Your task to perform on an android device: Open Amazon Image 0: 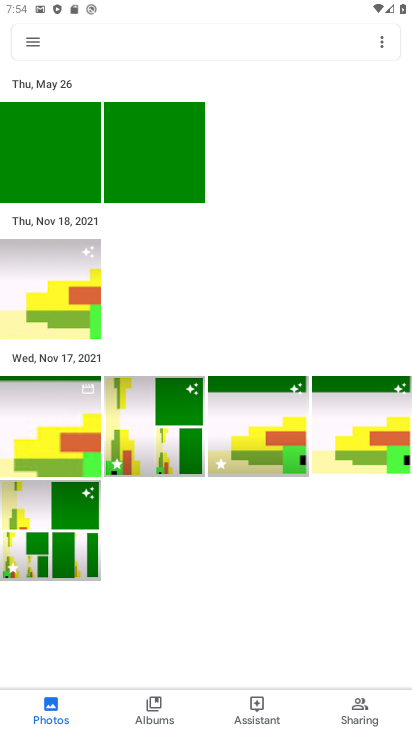
Step 0: drag from (181, 641) to (287, 248)
Your task to perform on an android device: Open Amazon Image 1: 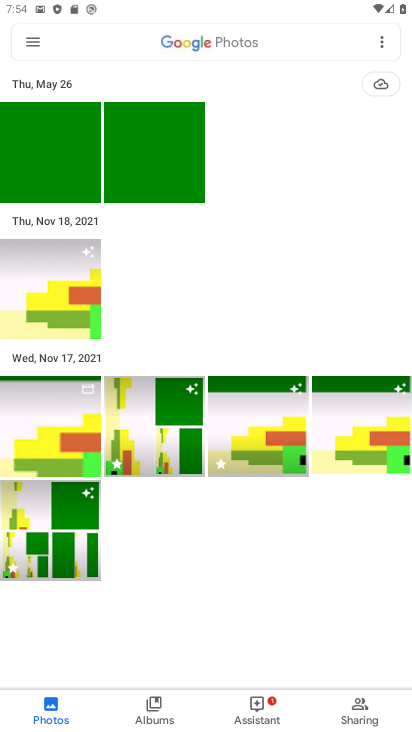
Step 1: press home button
Your task to perform on an android device: Open Amazon Image 2: 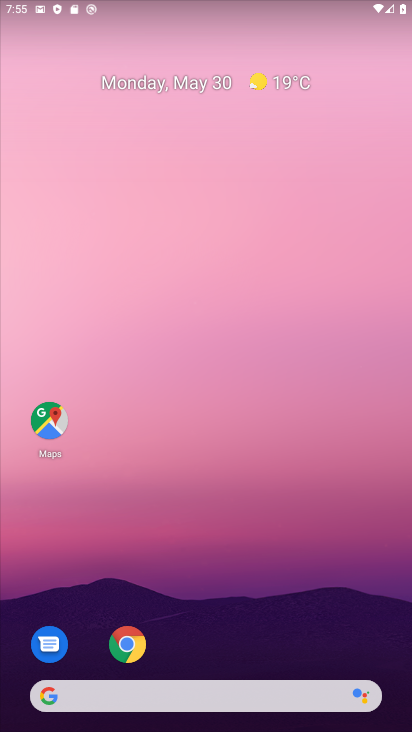
Step 2: click (128, 639)
Your task to perform on an android device: Open Amazon Image 3: 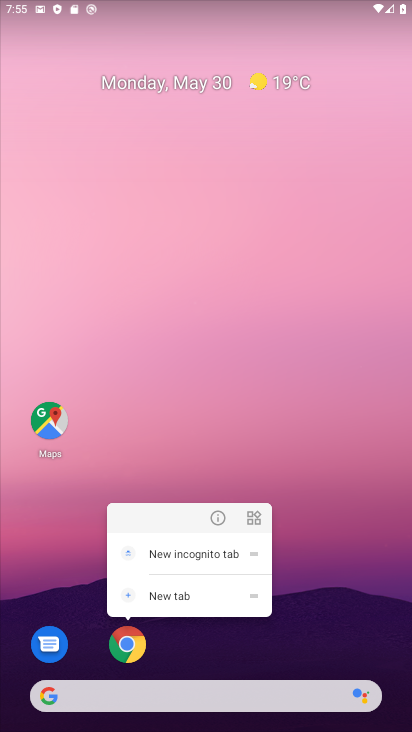
Step 3: click (215, 514)
Your task to perform on an android device: Open Amazon Image 4: 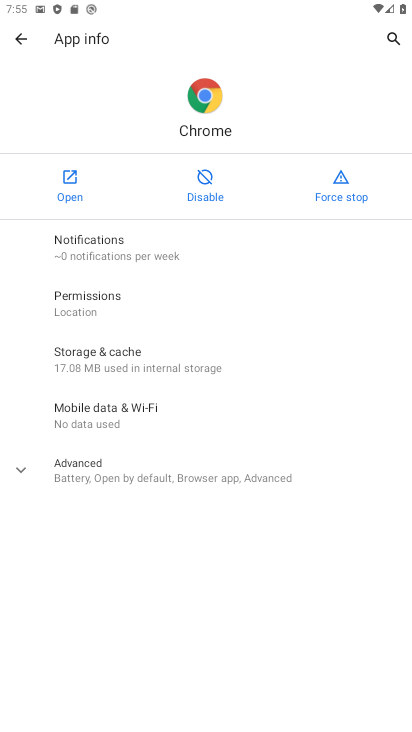
Step 4: click (73, 186)
Your task to perform on an android device: Open Amazon Image 5: 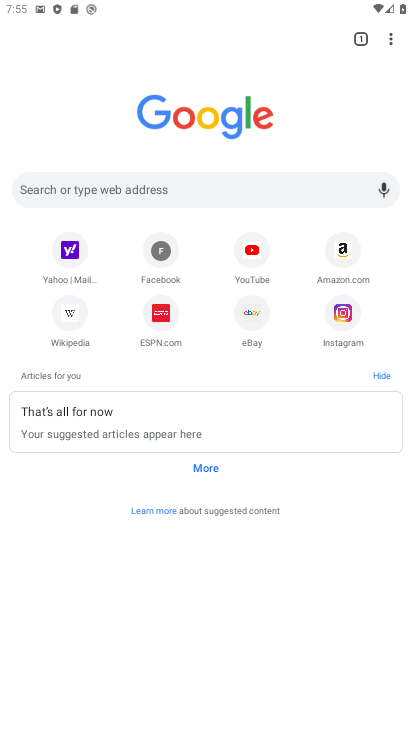
Step 5: click (347, 247)
Your task to perform on an android device: Open Amazon Image 6: 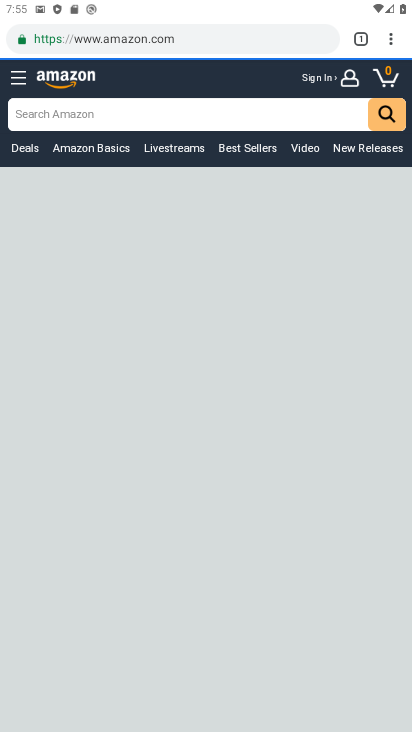
Step 6: task complete